Your task to perform on an android device: refresh tabs in the chrome app Image 0: 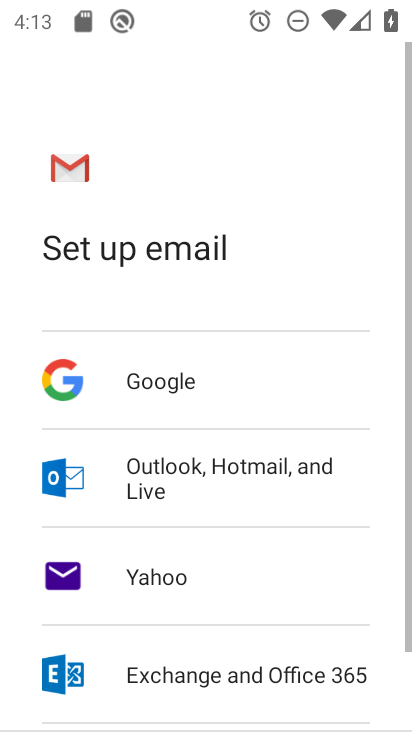
Step 0: press home button
Your task to perform on an android device: refresh tabs in the chrome app Image 1: 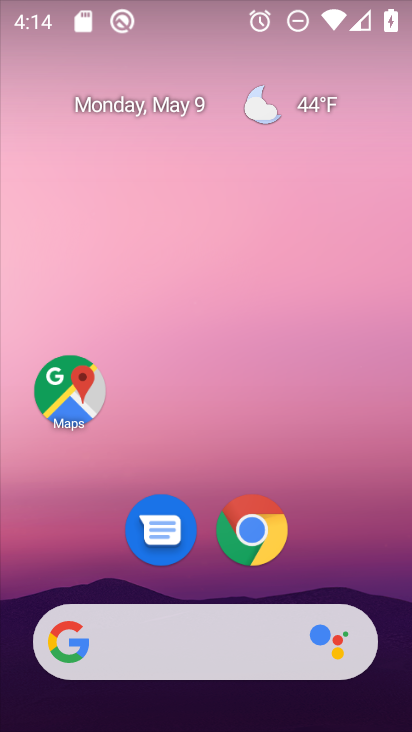
Step 1: click (244, 523)
Your task to perform on an android device: refresh tabs in the chrome app Image 2: 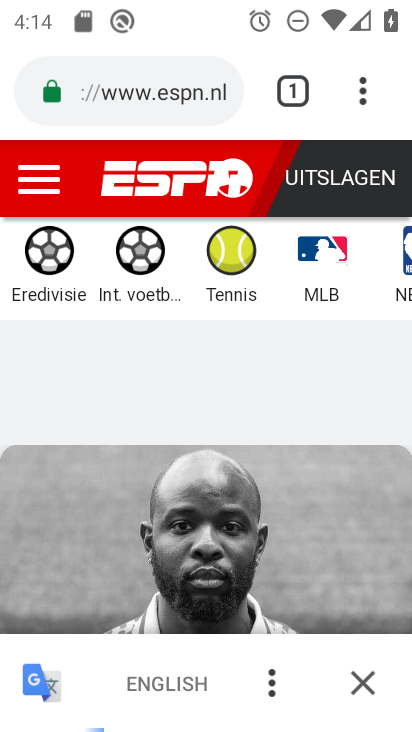
Step 2: click (362, 90)
Your task to perform on an android device: refresh tabs in the chrome app Image 3: 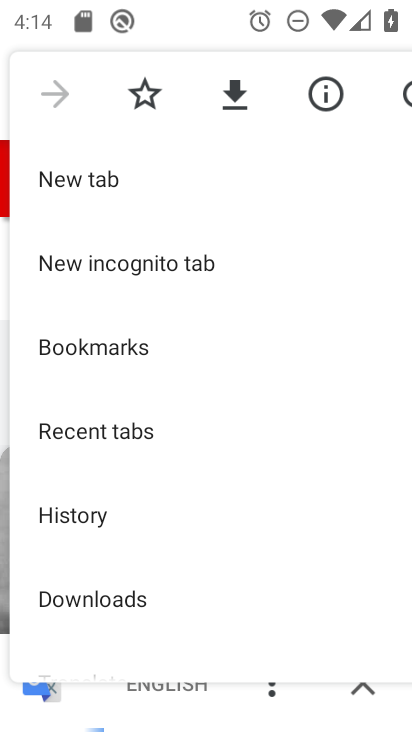
Step 3: click (155, 429)
Your task to perform on an android device: refresh tabs in the chrome app Image 4: 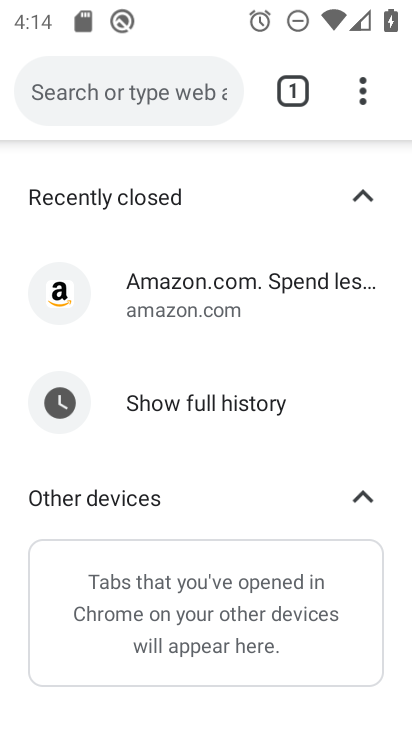
Step 4: task complete